Your task to perform on an android device: Open settings Image 0: 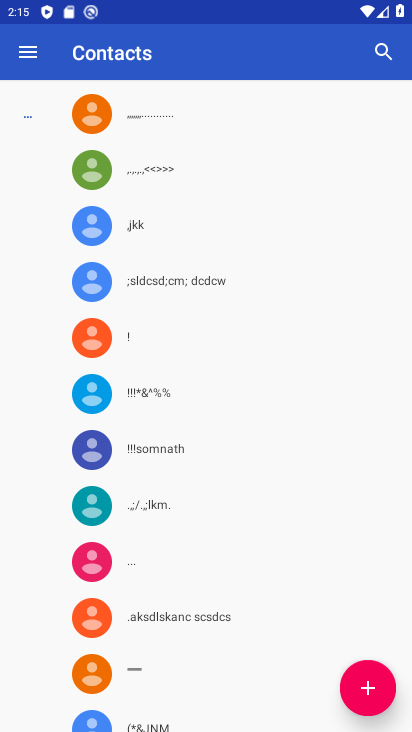
Step 0: press back button
Your task to perform on an android device: Open settings Image 1: 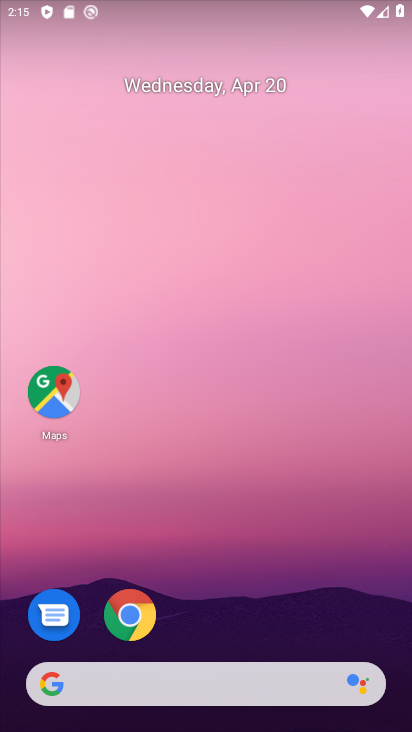
Step 1: drag from (194, 658) to (285, 89)
Your task to perform on an android device: Open settings Image 2: 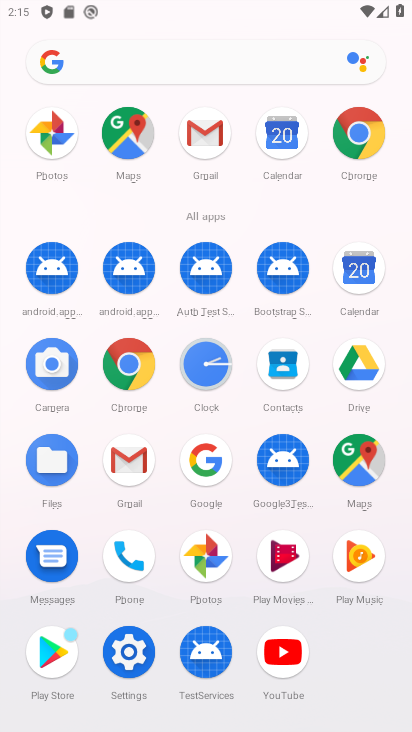
Step 2: click (129, 651)
Your task to perform on an android device: Open settings Image 3: 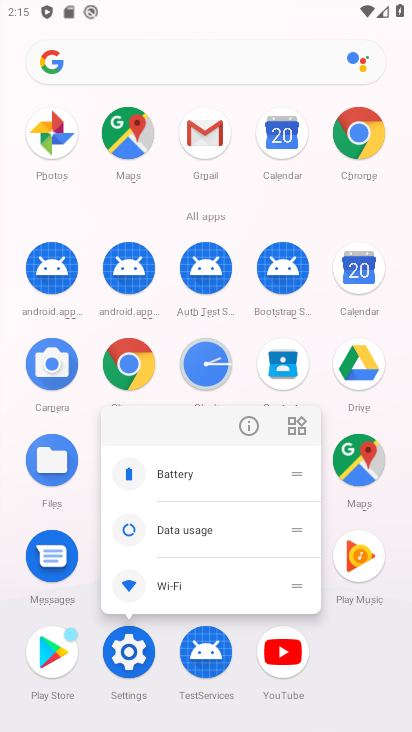
Step 3: click (123, 656)
Your task to perform on an android device: Open settings Image 4: 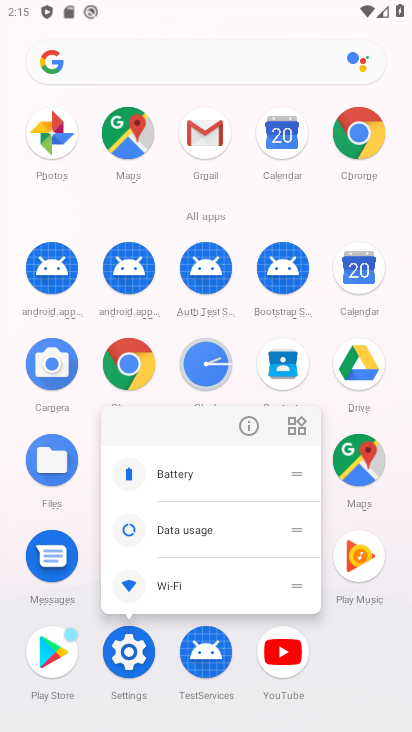
Step 4: click (125, 659)
Your task to perform on an android device: Open settings Image 5: 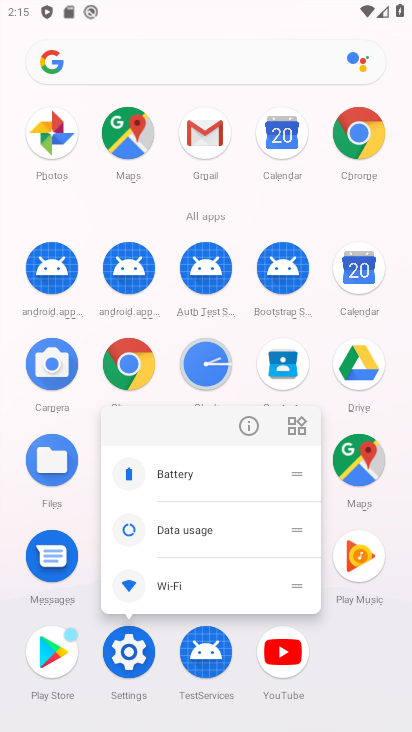
Step 5: click (132, 667)
Your task to perform on an android device: Open settings Image 6: 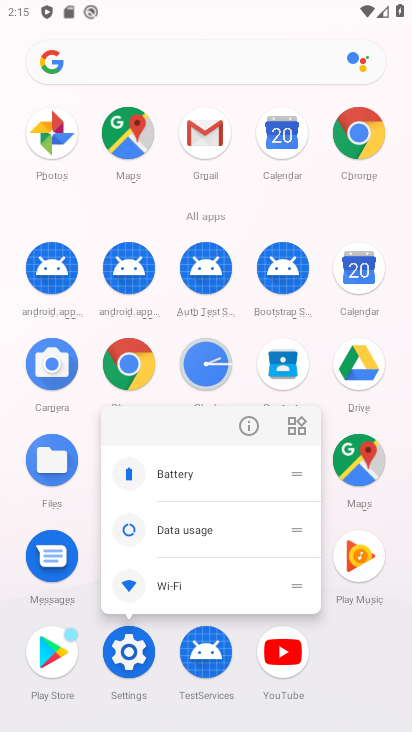
Step 6: click (133, 654)
Your task to perform on an android device: Open settings Image 7: 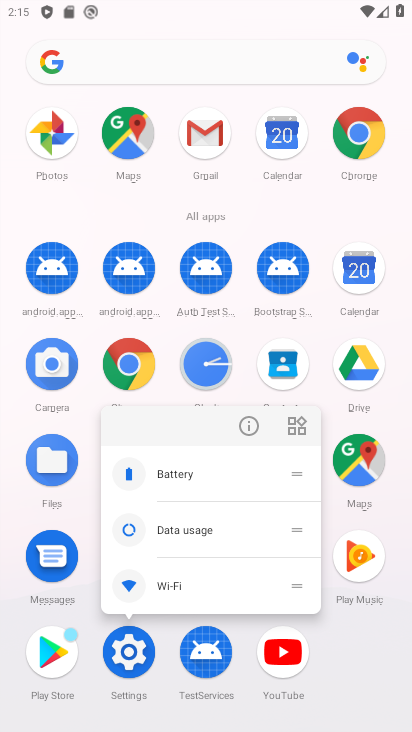
Step 7: click (134, 654)
Your task to perform on an android device: Open settings Image 8: 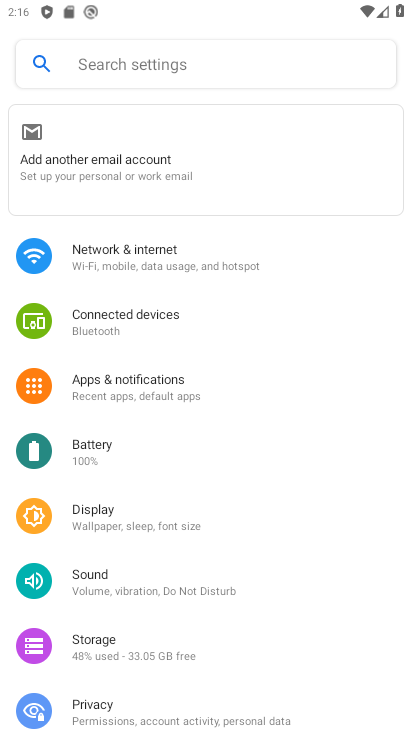
Step 8: task complete